Your task to perform on an android device: Go to display settings Image 0: 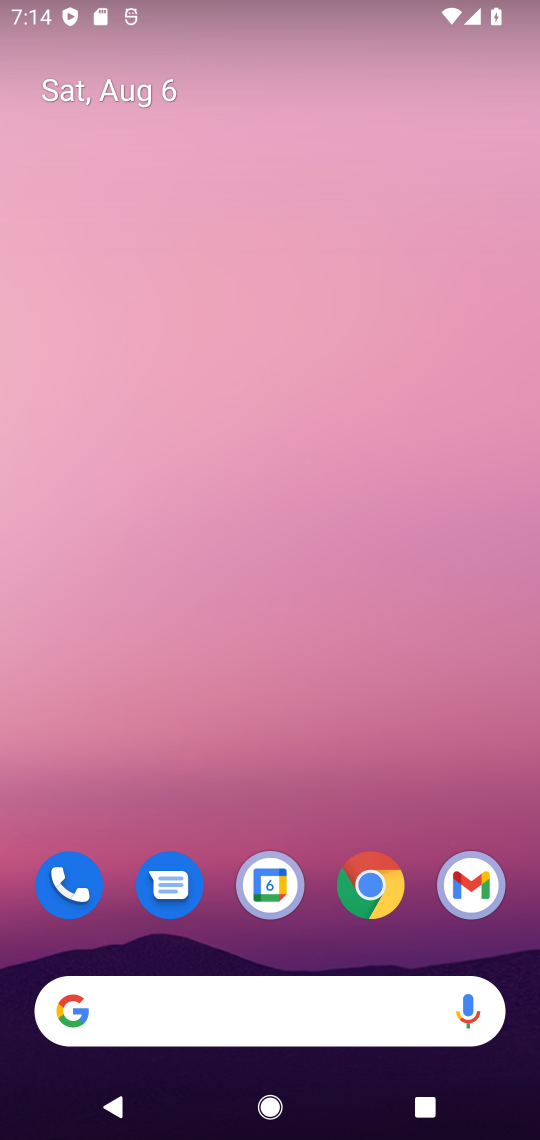
Step 0: drag from (267, 872) to (180, 0)
Your task to perform on an android device: Go to display settings Image 1: 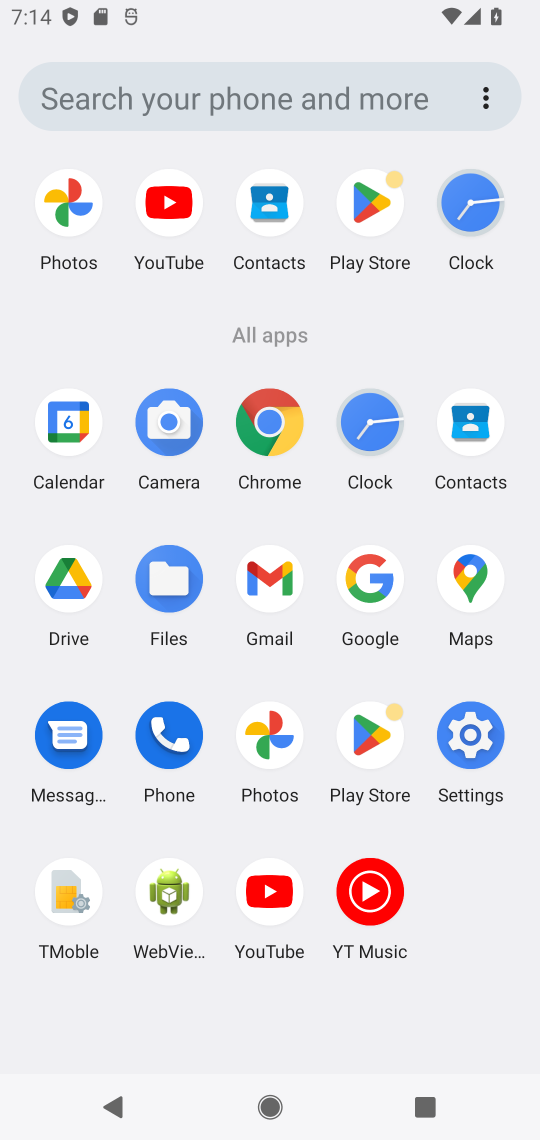
Step 1: click (478, 727)
Your task to perform on an android device: Go to display settings Image 2: 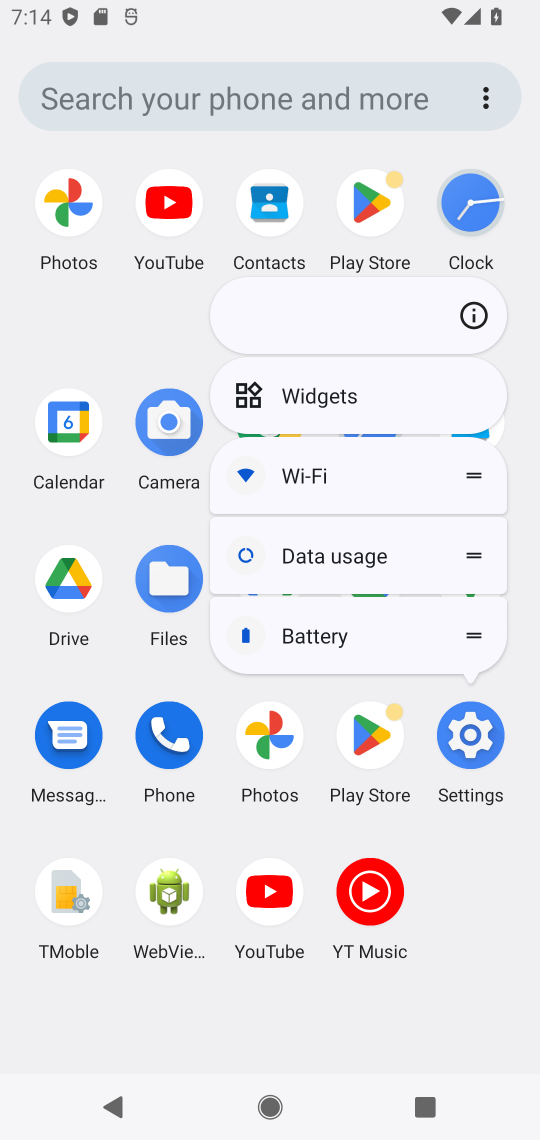
Step 2: click (479, 760)
Your task to perform on an android device: Go to display settings Image 3: 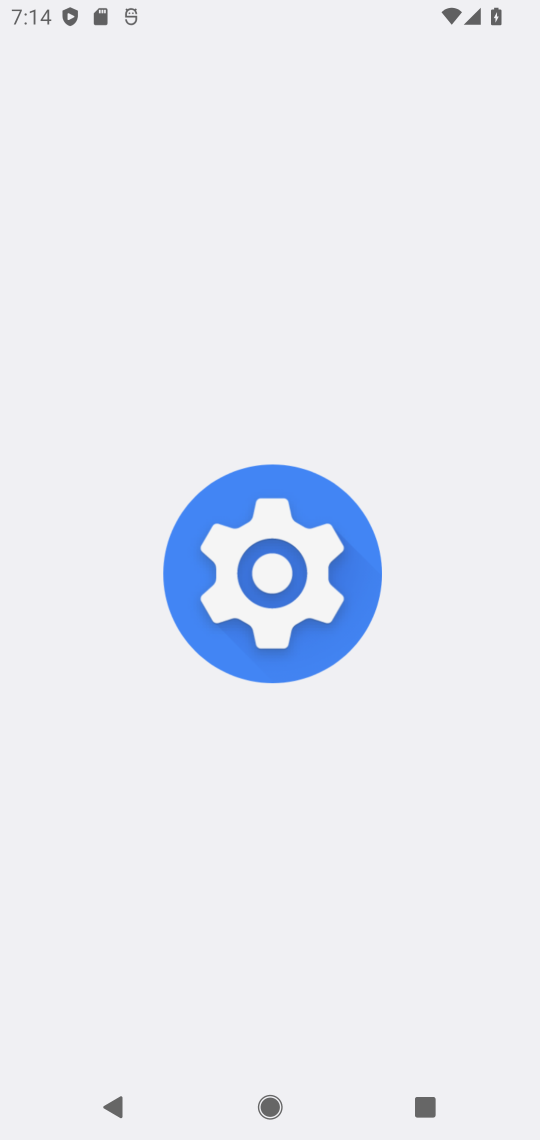
Step 3: click (479, 761)
Your task to perform on an android device: Go to display settings Image 4: 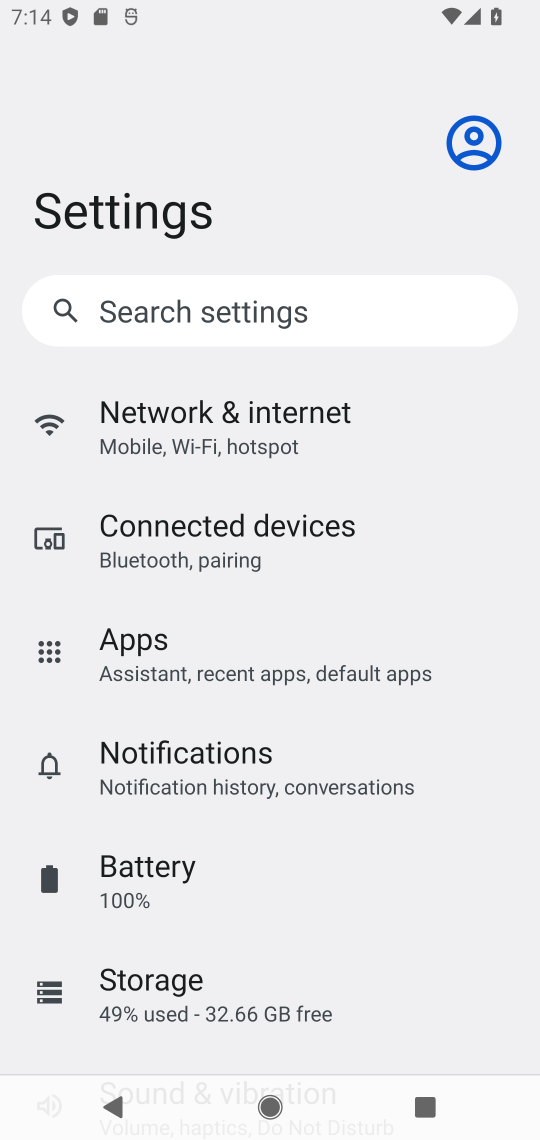
Step 4: drag from (184, 995) to (203, 396)
Your task to perform on an android device: Go to display settings Image 5: 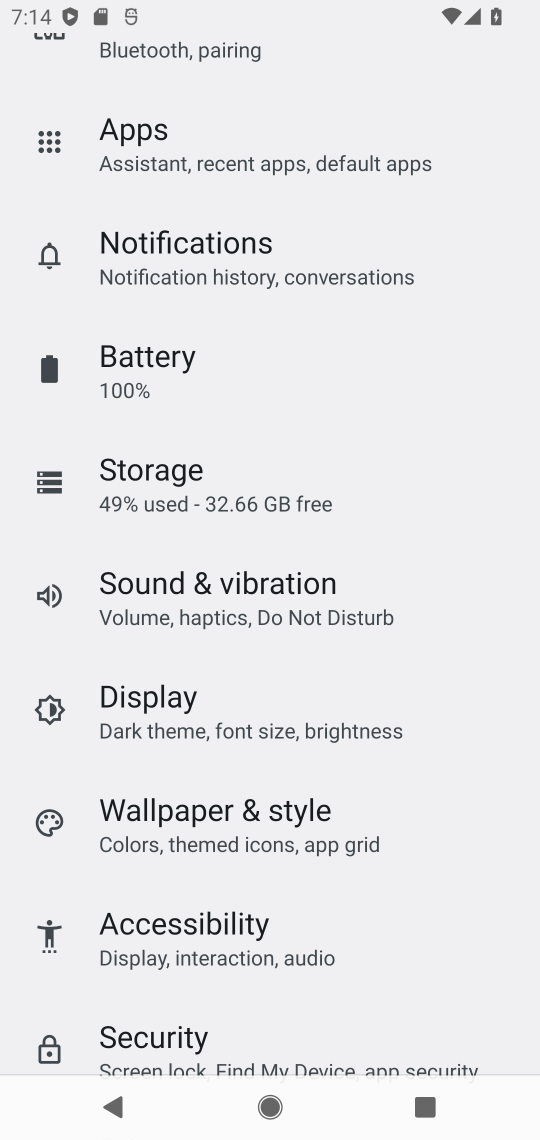
Step 5: drag from (246, 1050) to (200, 345)
Your task to perform on an android device: Go to display settings Image 6: 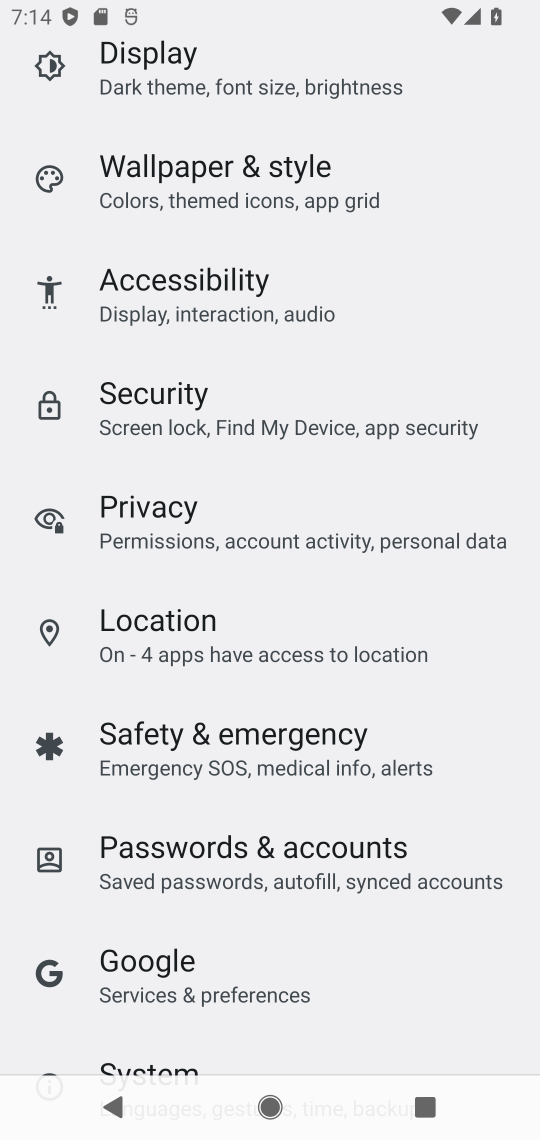
Step 6: drag from (261, 445) to (358, 998)
Your task to perform on an android device: Go to display settings Image 7: 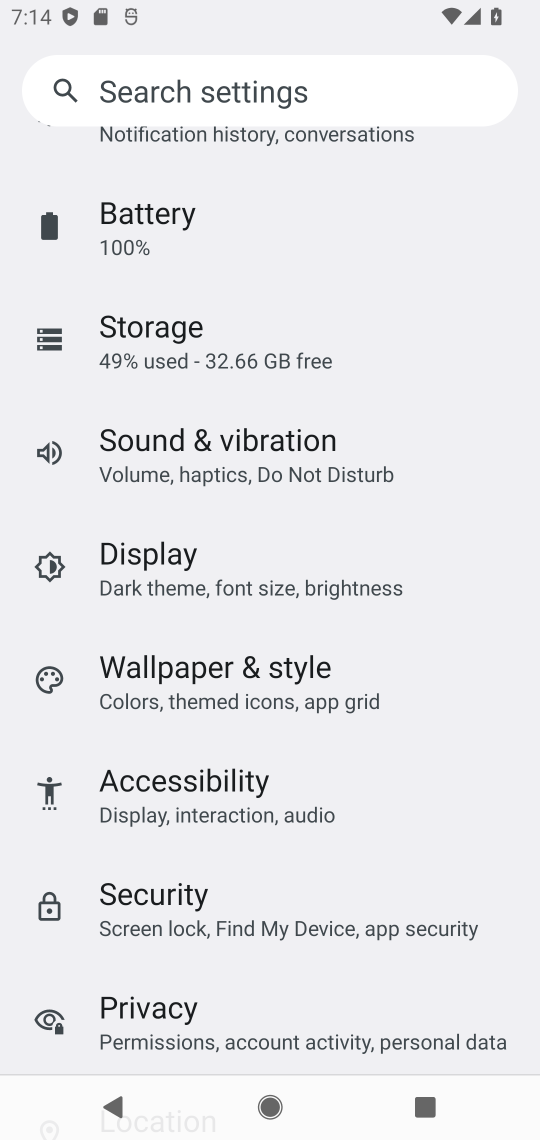
Step 7: click (187, 585)
Your task to perform on an android device: Go to display settings Image 8: 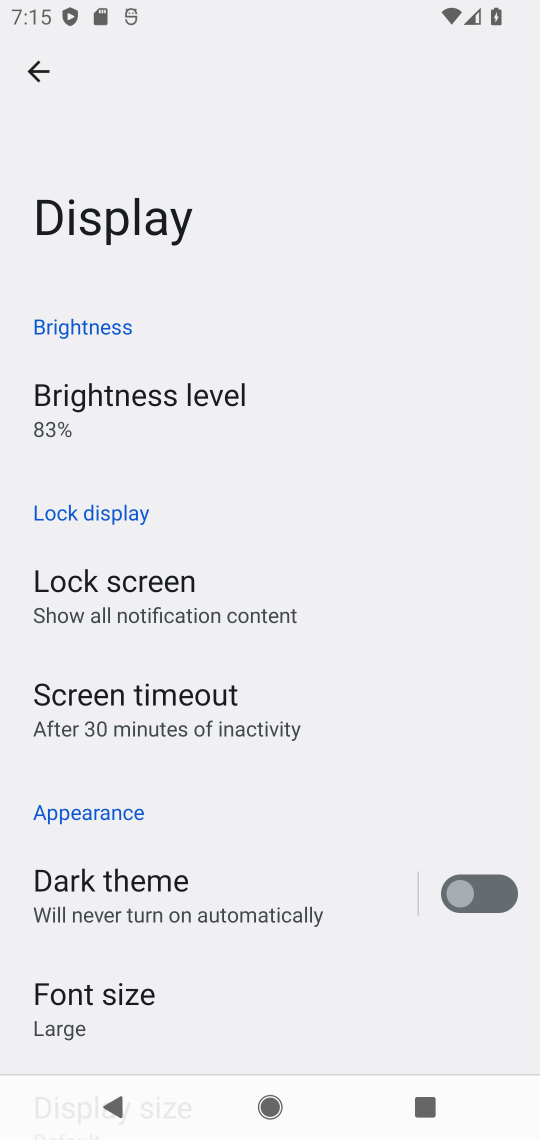
Step 8: task complete